Your task to perform on an android device: turn off smart reply in the gmail app Image 0: 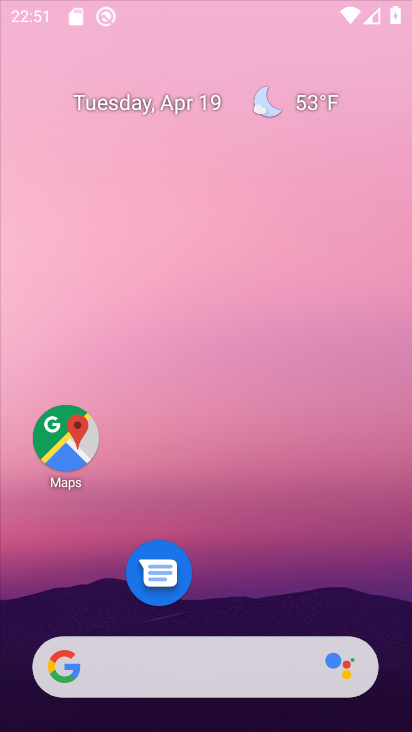
Step 0: click (250, 20)
Your task to perform on an android device: turn off smart reply in the gmail app Image 1: 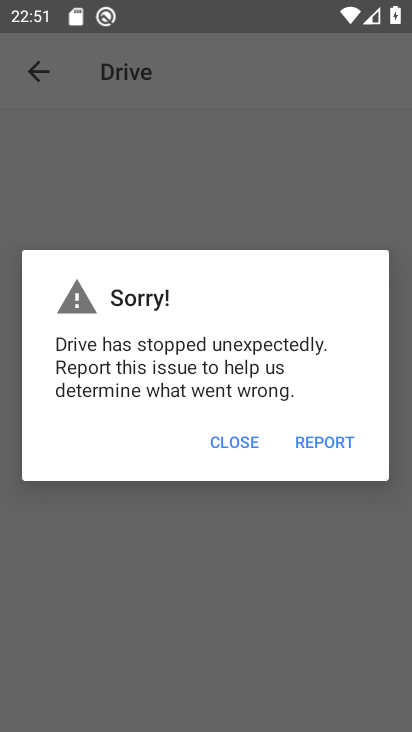
Step 1: press home button
Your task to perform on an android device: turn off smart reply in the gmail app Image 2: 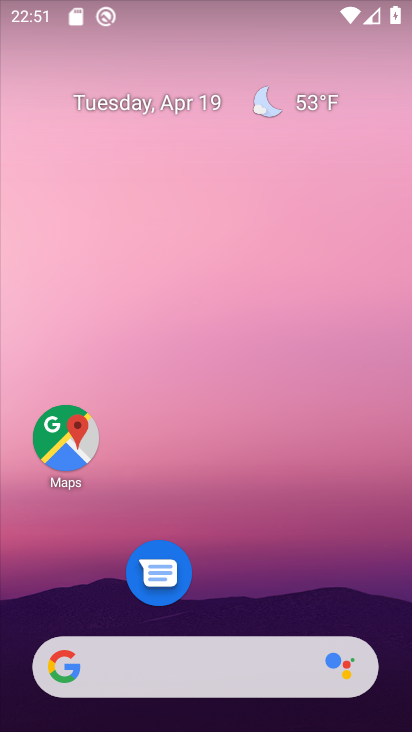
Step 2: drag from (230, 439) to (234, 177)
Your task to perform on an android device: turn off smart reply in the gmail app Image 3: 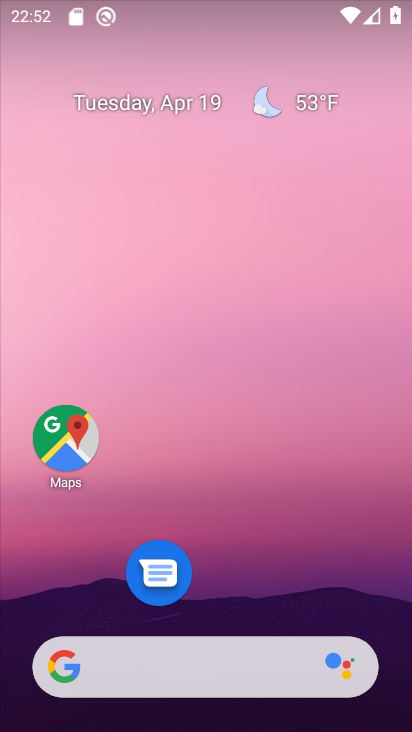
Step 3: drag from (240, 599) to (308, 167)
Your task to perform on an android device: turn off smart reply in the gmail app Image 4: 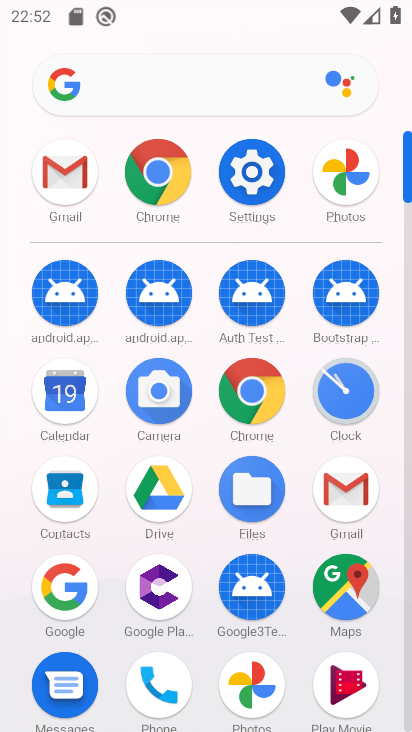
Step 4: click (351, 486)
Your task to perform on an android device: turn off smart reply in the gmail app Image 5: 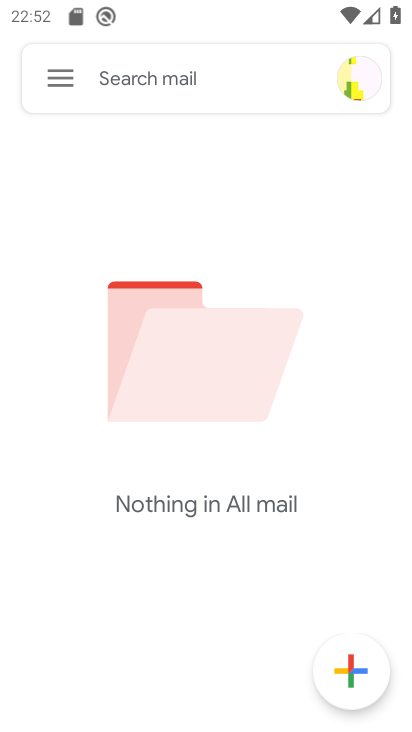
Step 5: click (61, 79)
Your task to perform on an android device: turn off smart reply in the gmail app Image 6: 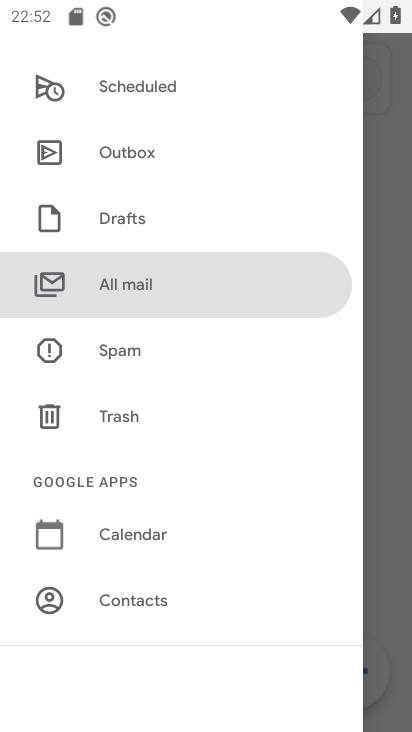
Step 6: drag from (112, 615) to (149, 107)
Your task to perform on an android device: turn off smart reply in the gmail app Image 7: 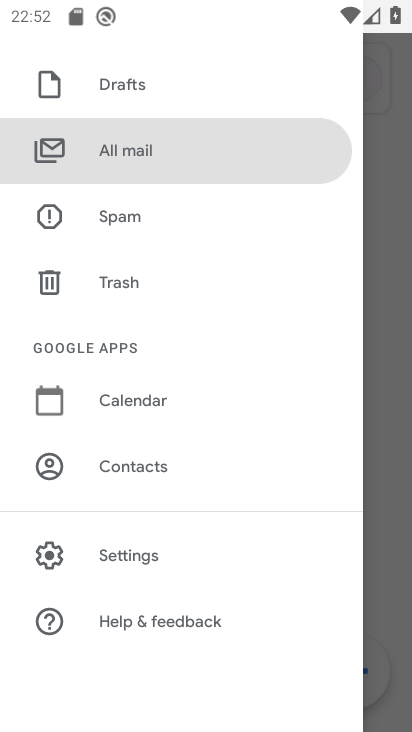
Step 7: click (113, 549)
Your task to perform on an android device: turn off smart reply in the gmail app Image 8: 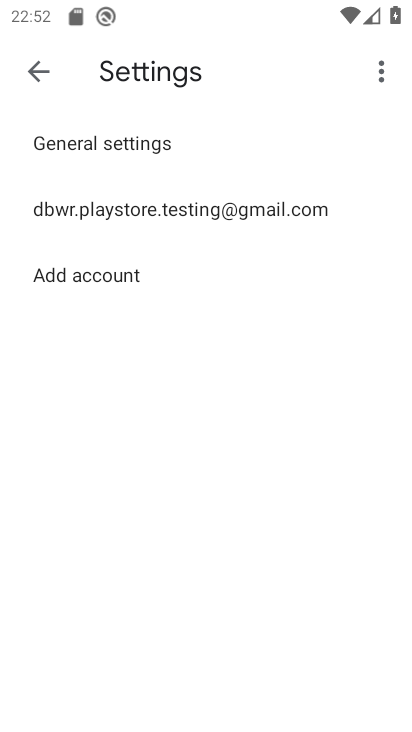
Step 8: click (223, 214)
Your task to perform on an android device: turn off smart reply in the gmail app Image 9: 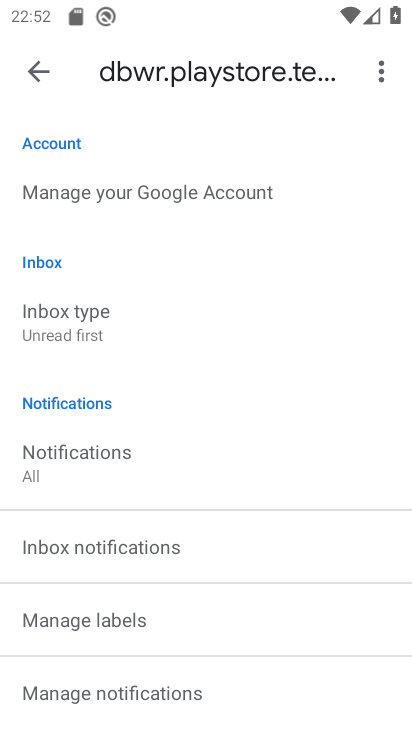
Step 9: drag from (234, 661) to (297, 253)
Your task to perform on an android device: turn off smart reply in the gmail app Image 10: 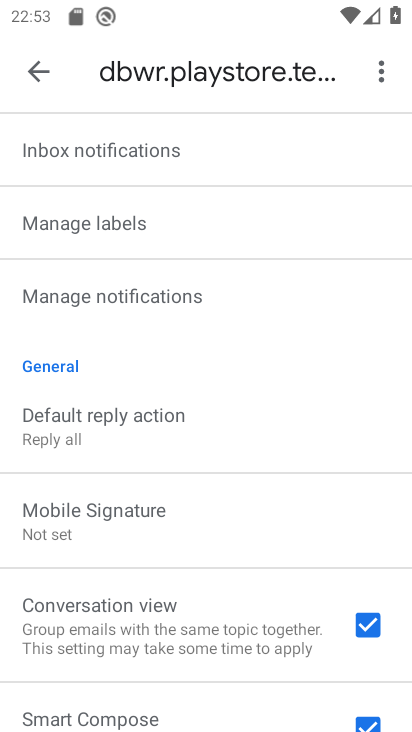
Step 10: drag from (255, 570) to (314, 136)
Your task to perform on an android device: turn off smart reply in the gmail app Image 11: 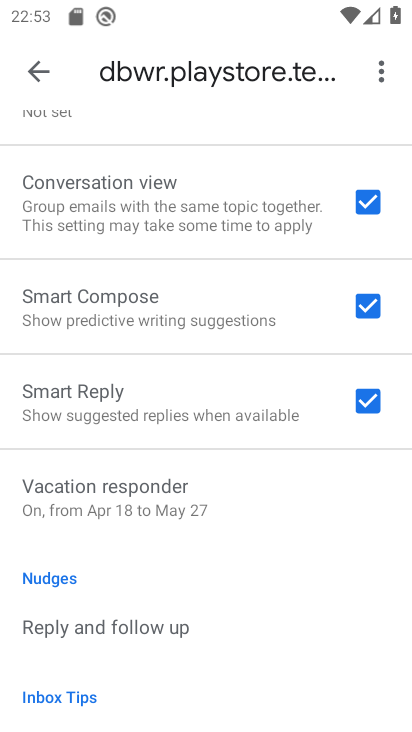
Step 11: click (365, 399)
Your task to perform on an android device: turn off smart reply in the gmail app Image 12: 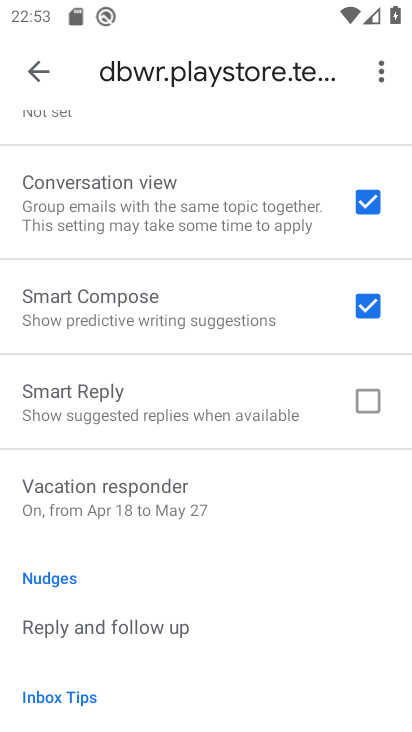
Step 12: task complete